Your task to perform on an android device: move a message to another label in the gmail app Image 0: 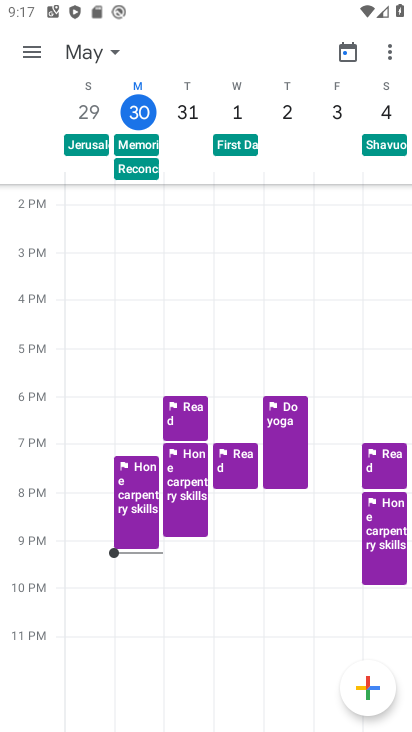
Step 0: press home button
Your task to perform on an android device: move a message to another label in the gmail app Image 1: 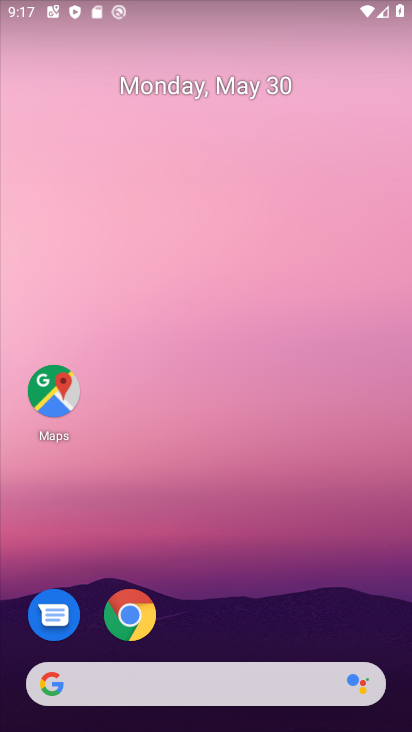
Step 1: drag from (267, 362) to (197, 34)
Your task to perform on an android device: move a message to another label in the gmail app Image 2: 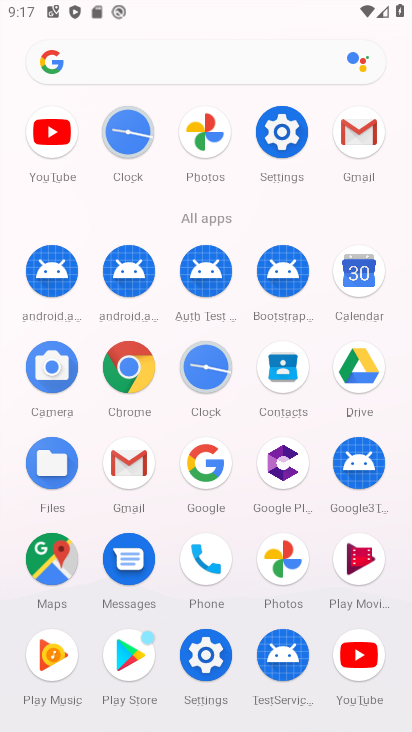
Step 2: click (126, 458)
Your task to perform on an android device: move a message to another label in the gmail app Image 3: 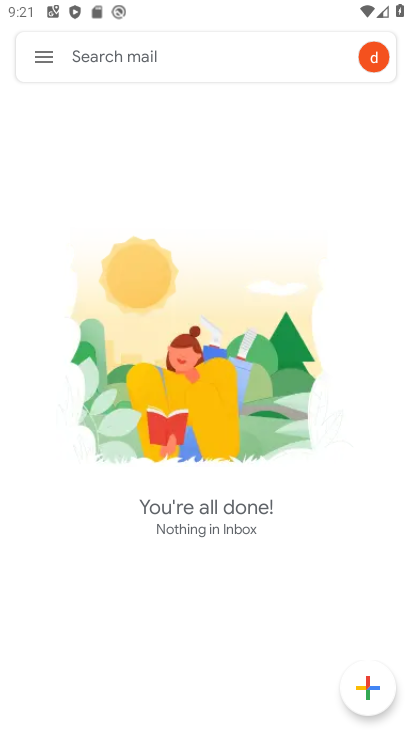
Step 3: task complete